Your task to perform on an android device: Go to CNN.com Image 0: 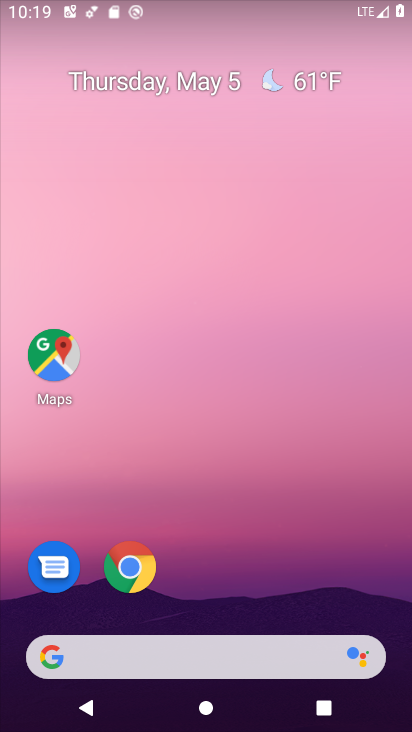
Step 0: click (186, 652)
Your task to perform on an android device: Go to CNN.com Image 1: 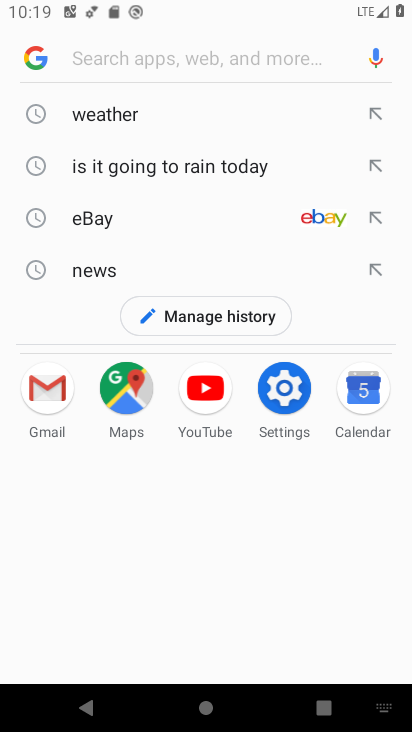
Step 1: type "CNN.com"
Your task to perform on an android device: Go to CNN.com Image 2: 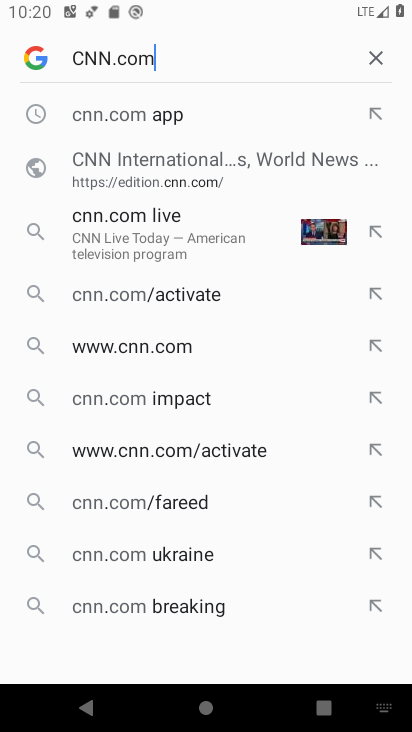
Step 2: click (183, 158)
Your task to perform on an android device: Go to CNN.com Image 3: 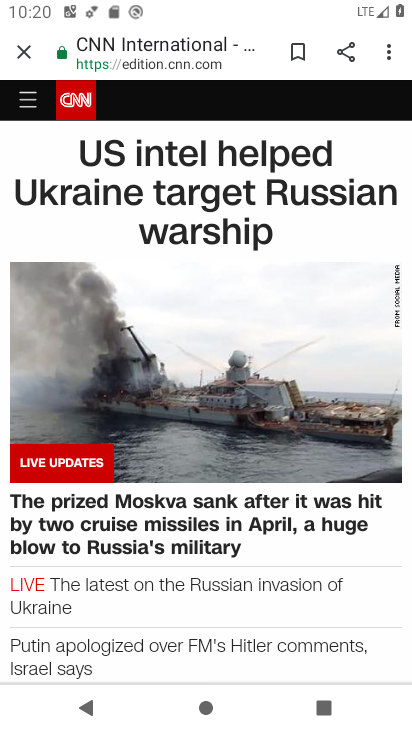
Step 3: task complete